Your task to perform on an android device: turn off location history Image 0: 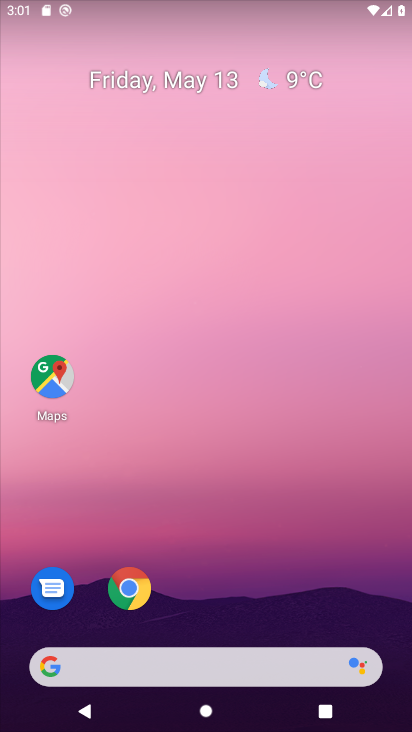
Step 0: drag from (350, 585) to (207, 85)
Your task to perform on an android device: turn off location history Image 1: 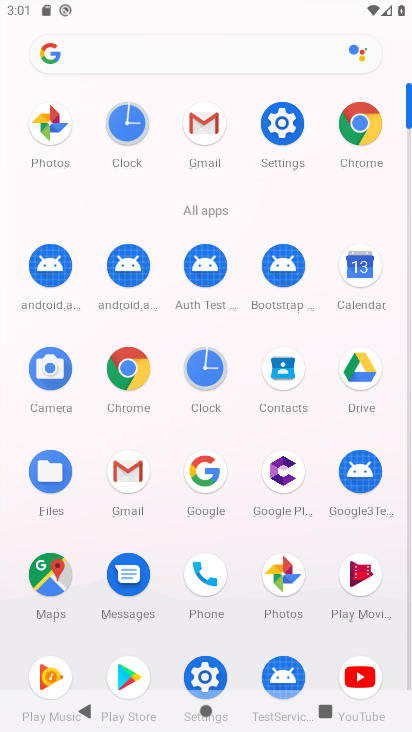
Step 1: click (193, 669)
Your task to perform on an android device: turn off location history Image 2: 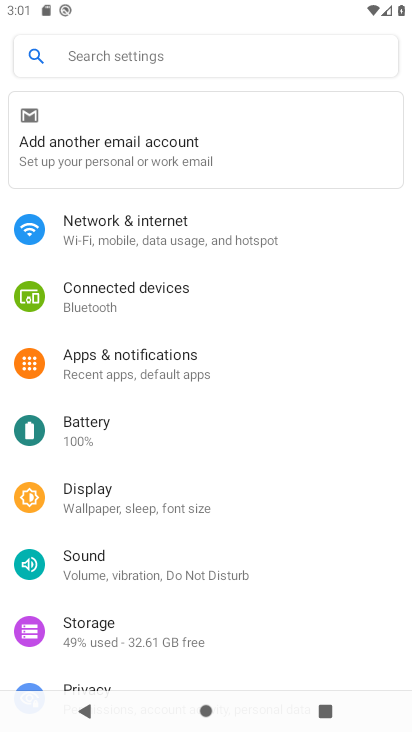
Step 2: drag from (257, 564) to (157, 335)
Your task to perform on an android device: turn off location history Image 3: 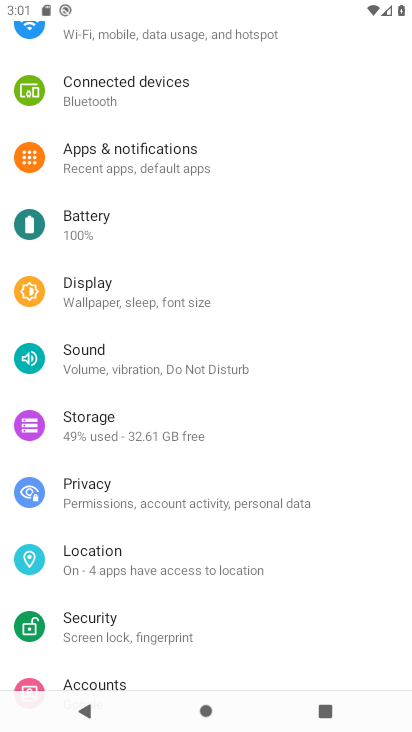
Step 3: click (208, 550)
Your task to perform on an android device: turn off location history Image 4: 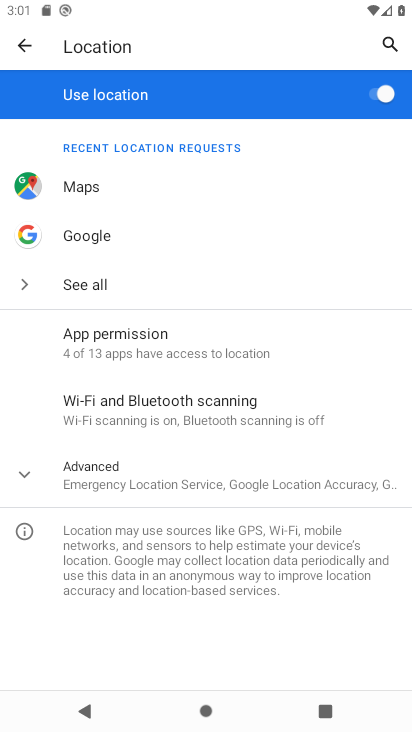
Step 4: click (101, 482)
Your task to perform on an android device: turn off location history Image 5: 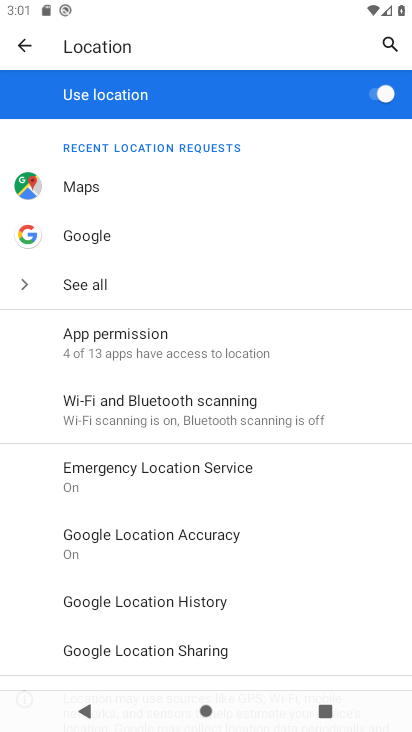
Step 5: click (187, 595)
Your task to perform on an android device: turn off location history Image 6: 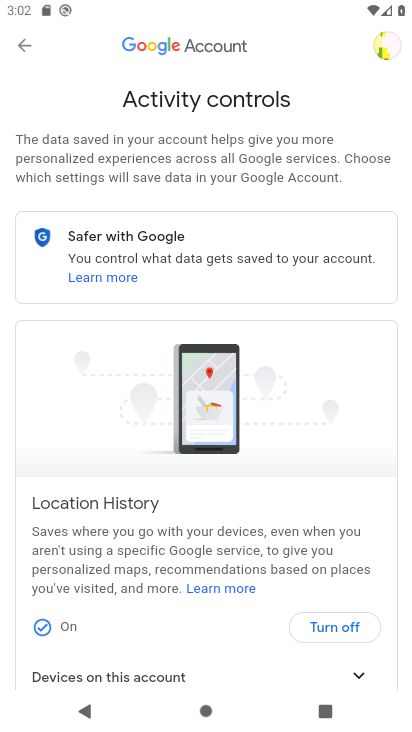
Step 6: click (320, 629)
Your task to perform on an android device: turn off location history Image 7: 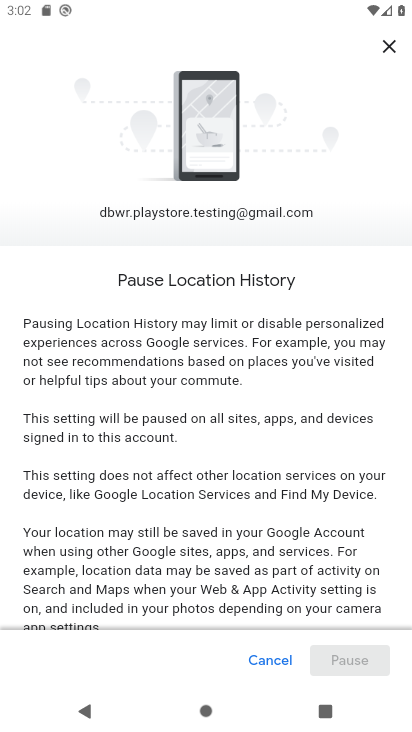
Step 7: drag from (324, 600) to (212, 233)
Your task to perform on an android device: turn off location history Image 8: 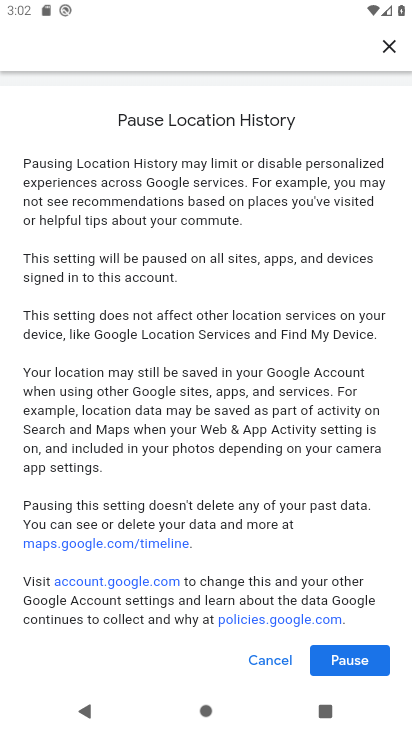
Step 8: click (375, 663)
Your task to perform on an android device: turn off location history Image 9: 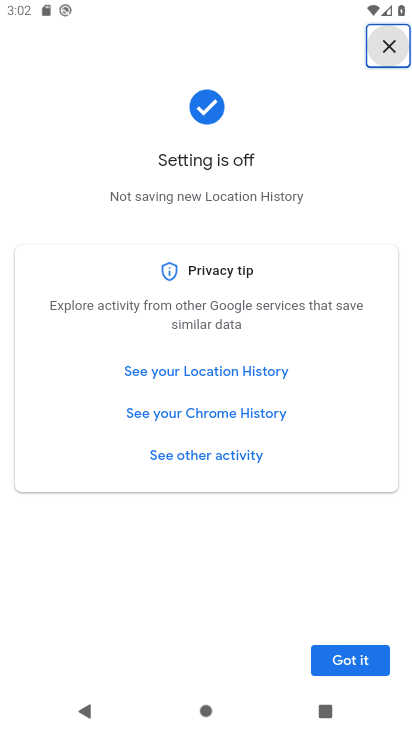
Step 9: click (352, 654)
Your task to perform on an android device: turn off location history Image 10: 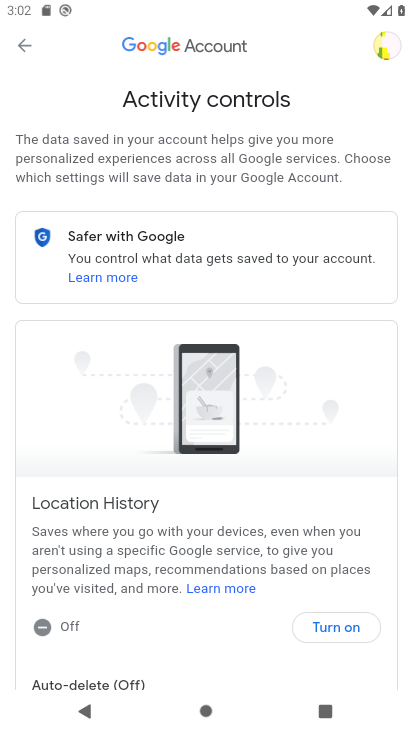
Step 10: task complete